Your task to perform on an android device: Open Yahoo.com Image 0: 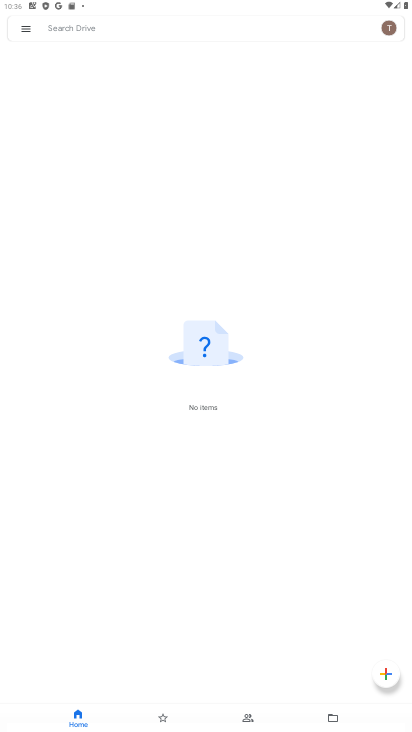
Step 0: press home button
Your task to perform on an android device: Open Yahoo.com Image 1: 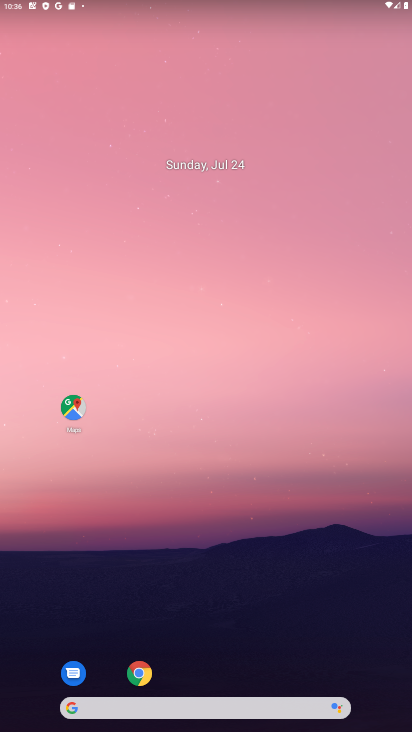
Step 1: click (129, 696)
Your task to perform on an android device: Open Yahoo.com Image 2: 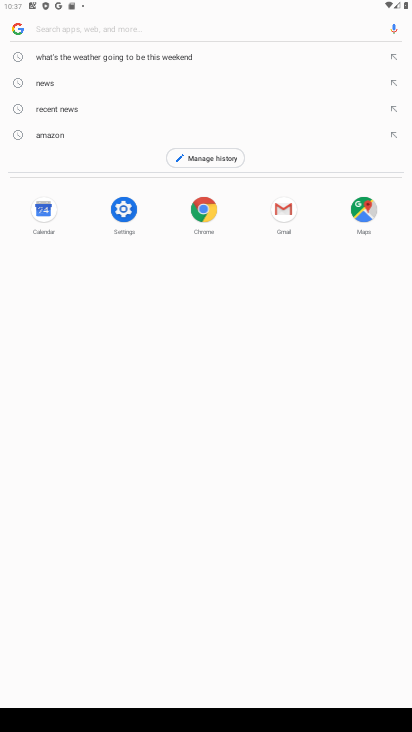
Step 2: type "Yahoo.com"
Your task to perform on an android device: Open Yahoo.com Image 3: 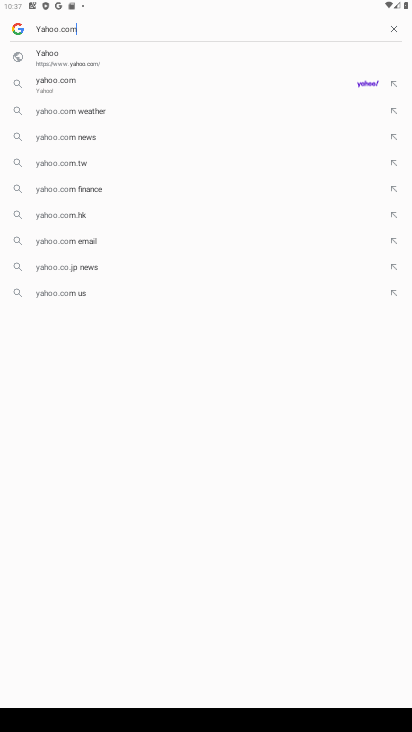
Step 3: type ""
Your task to perform on an android device: Open Yahoo.com Image 4: 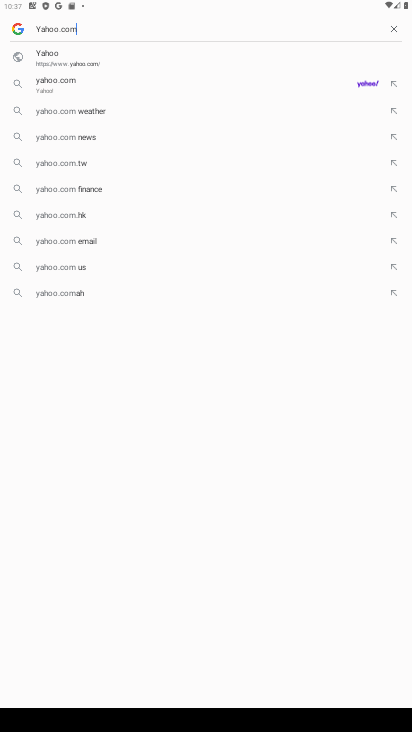
Step 4: click (44, 53)
Your task to perform on an android device: Open Yahoo.com Image 5: 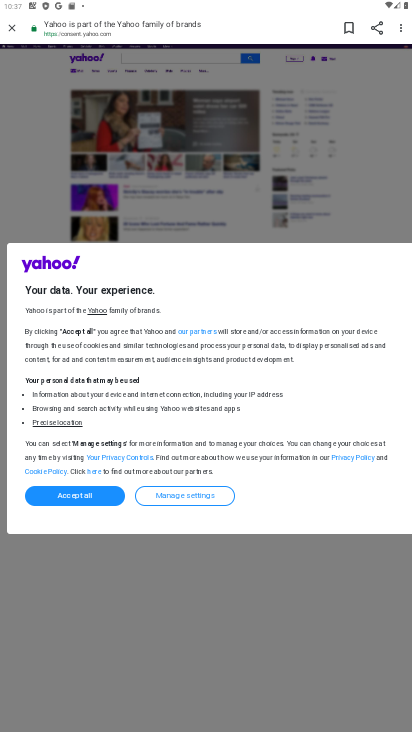
Step 5: task complete